Your task to perform on an android device: open wifi settings Image 0: 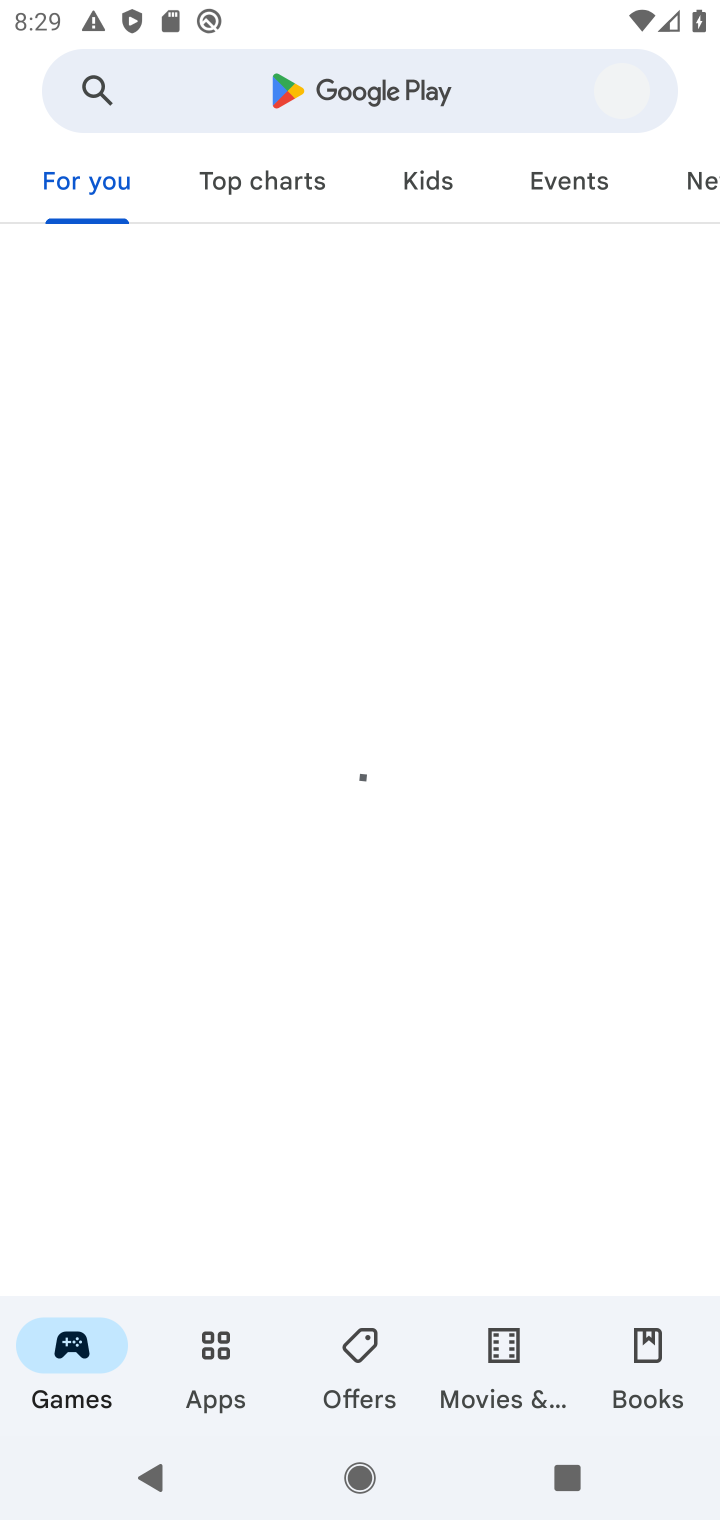
Step 0: press home button
Your task to perform on an android device: open wifi settings Image 1: 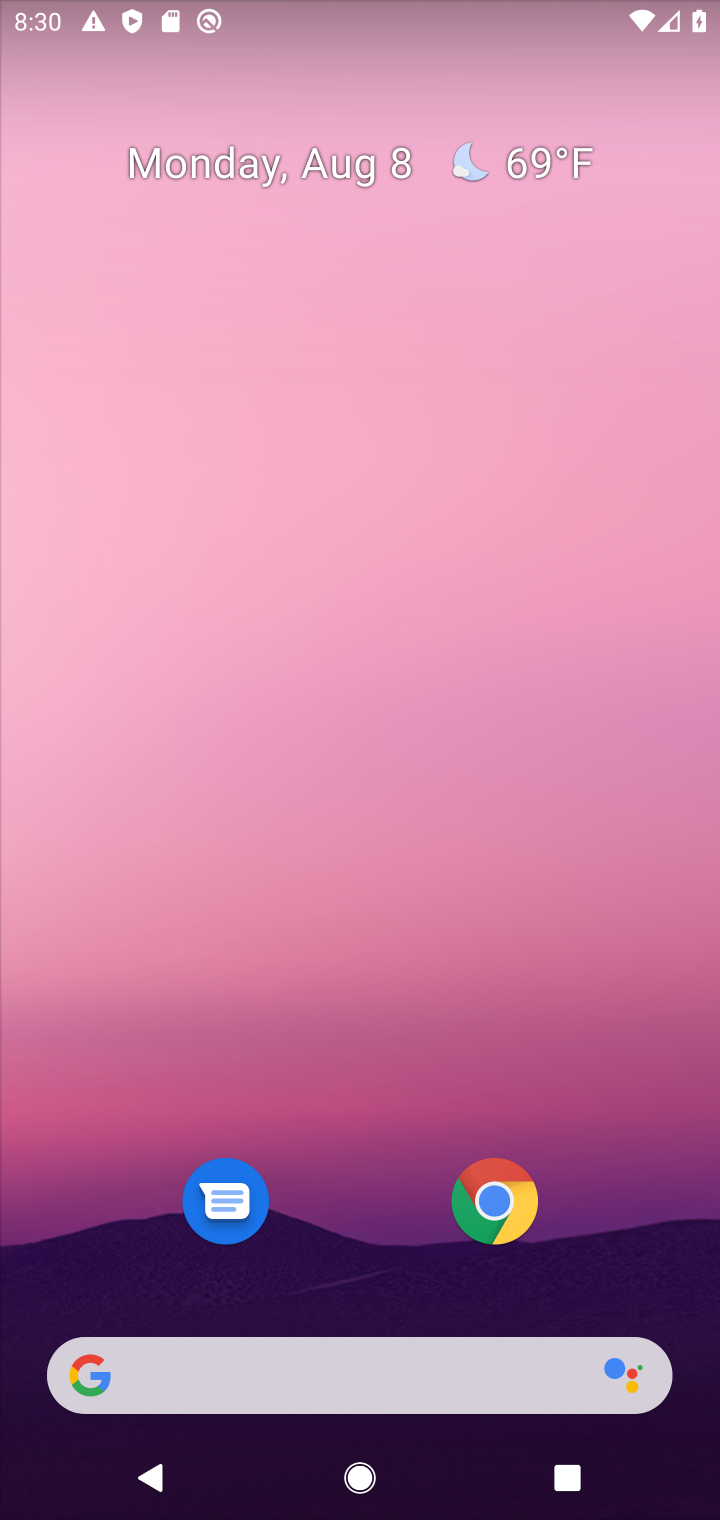
Step 1: press home button
Your task to perform on an android device: open wifi settings Image 2: 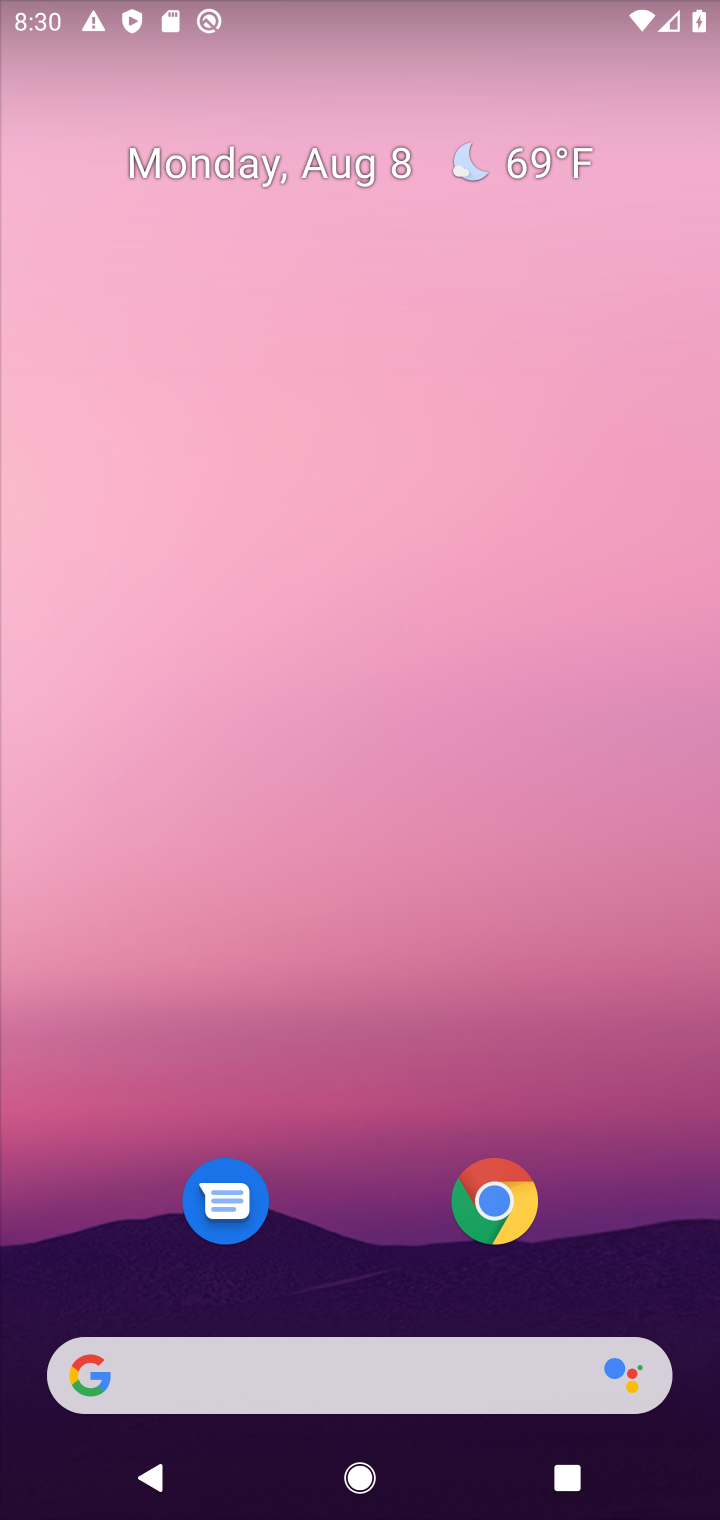
Step 2: drag from (601, 1241) to (587, 227)
Your task to perform on an android device: open wifi settings Image 3: 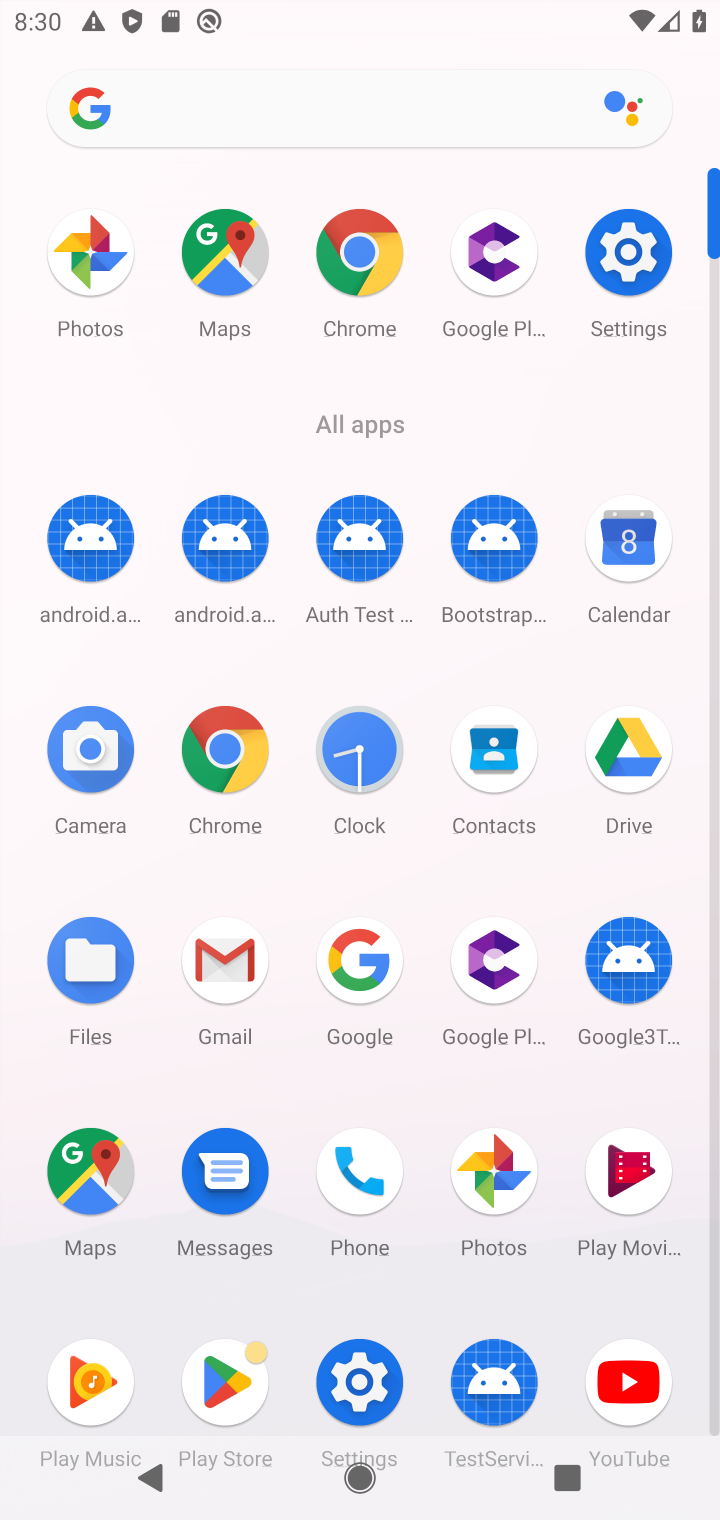
Step 3: click (635, 242)
Your task to perform on an android device: open wifi settings Image 4: 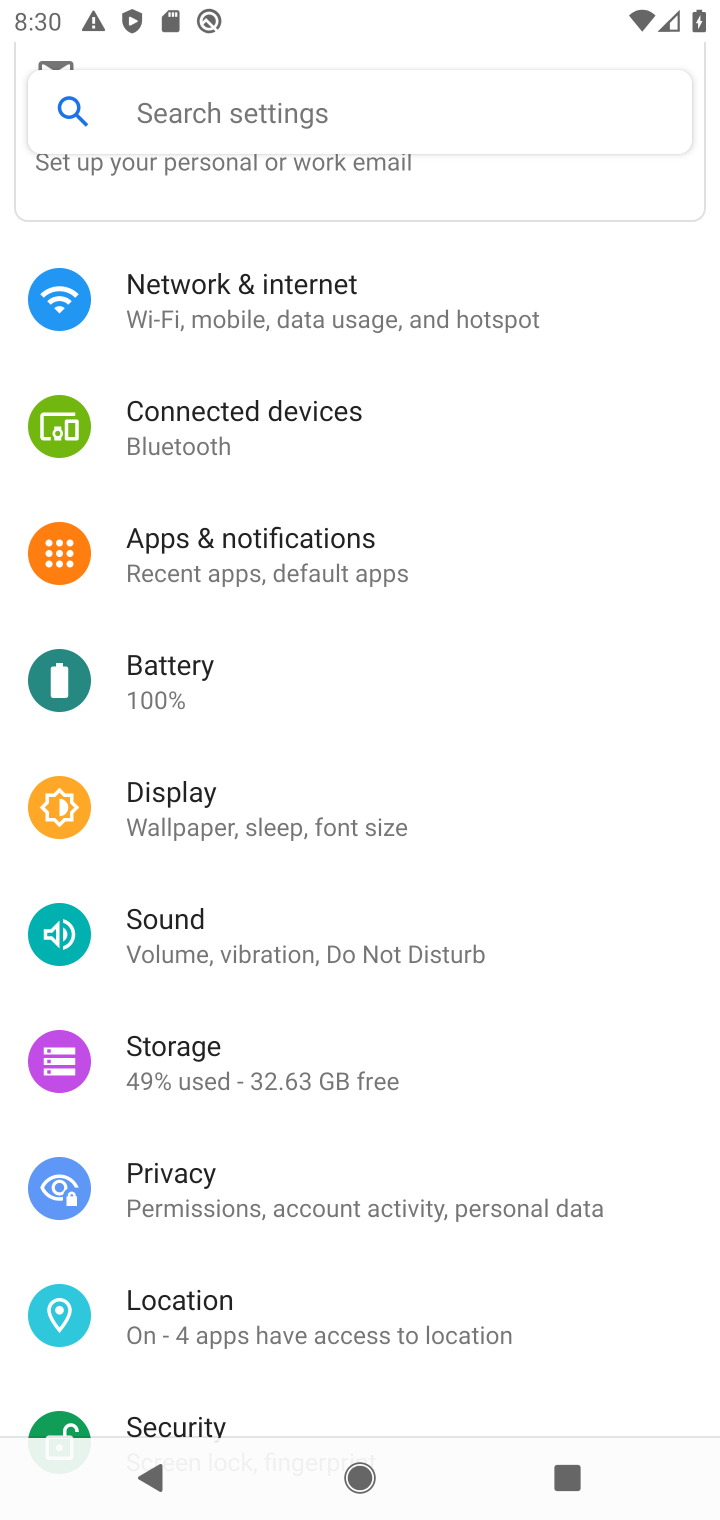
Step 4: drag from (569, 1079) to (587, 861)
Your task to perform on an android device: open wifi settings Image 5: 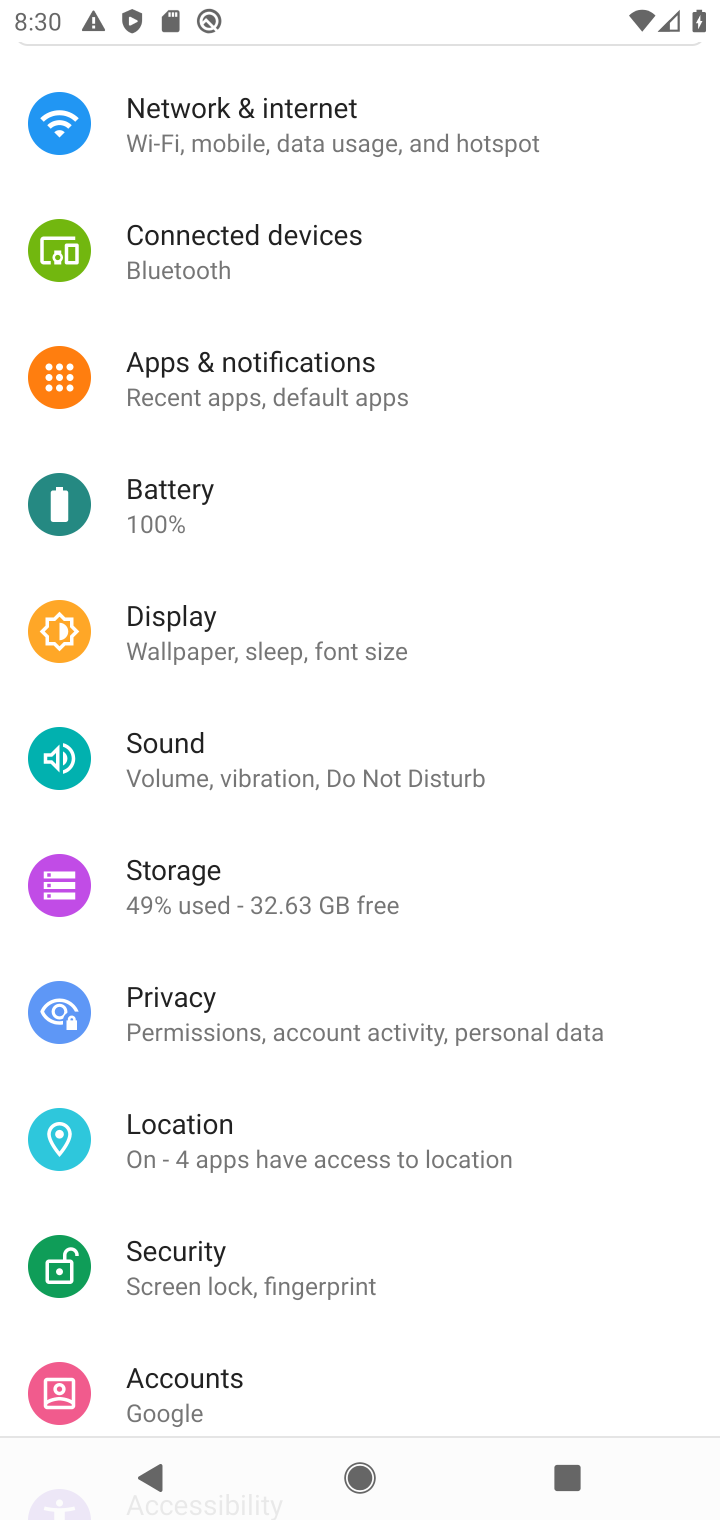
Step 5: drag from (593, 1187) to (634, 906)
Your task to perform on an android device: open wifi settings Image 6: 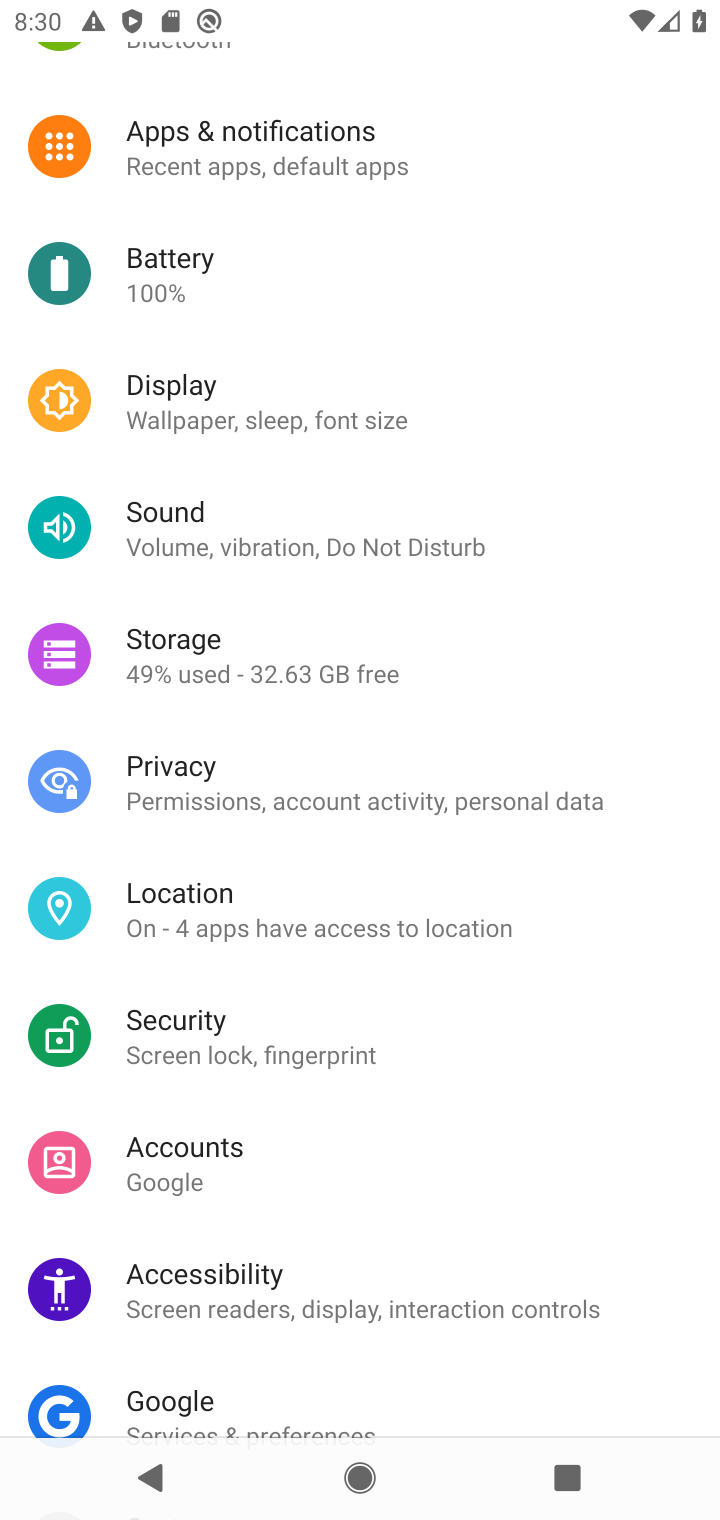
Step 6: drag from (582, 1152) to (624, 821)
Your task to perform on an android device: open wifi settings Image 7: 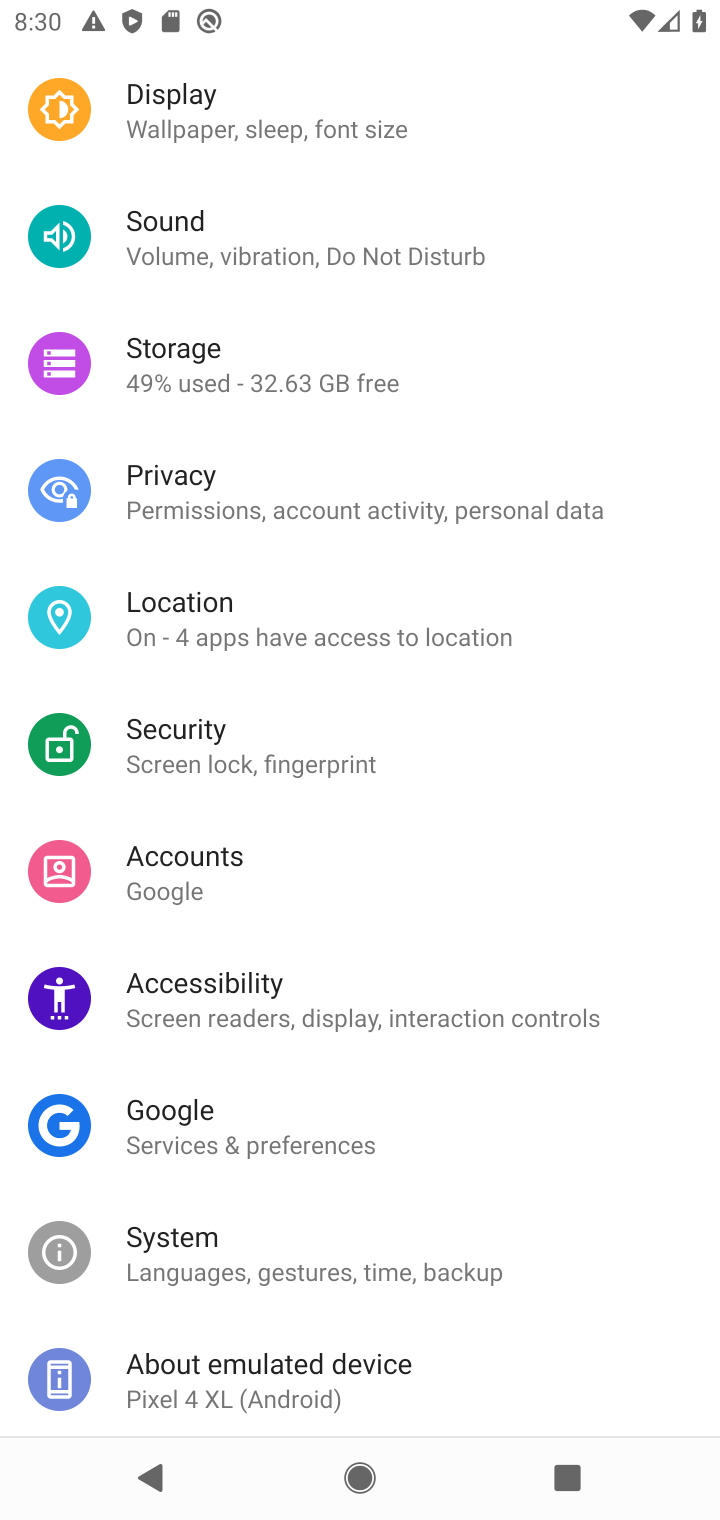
Step 7: drag from (606, 1218) to (629, 798)
Your task to perform on an android device: open wifi settings Image 8: 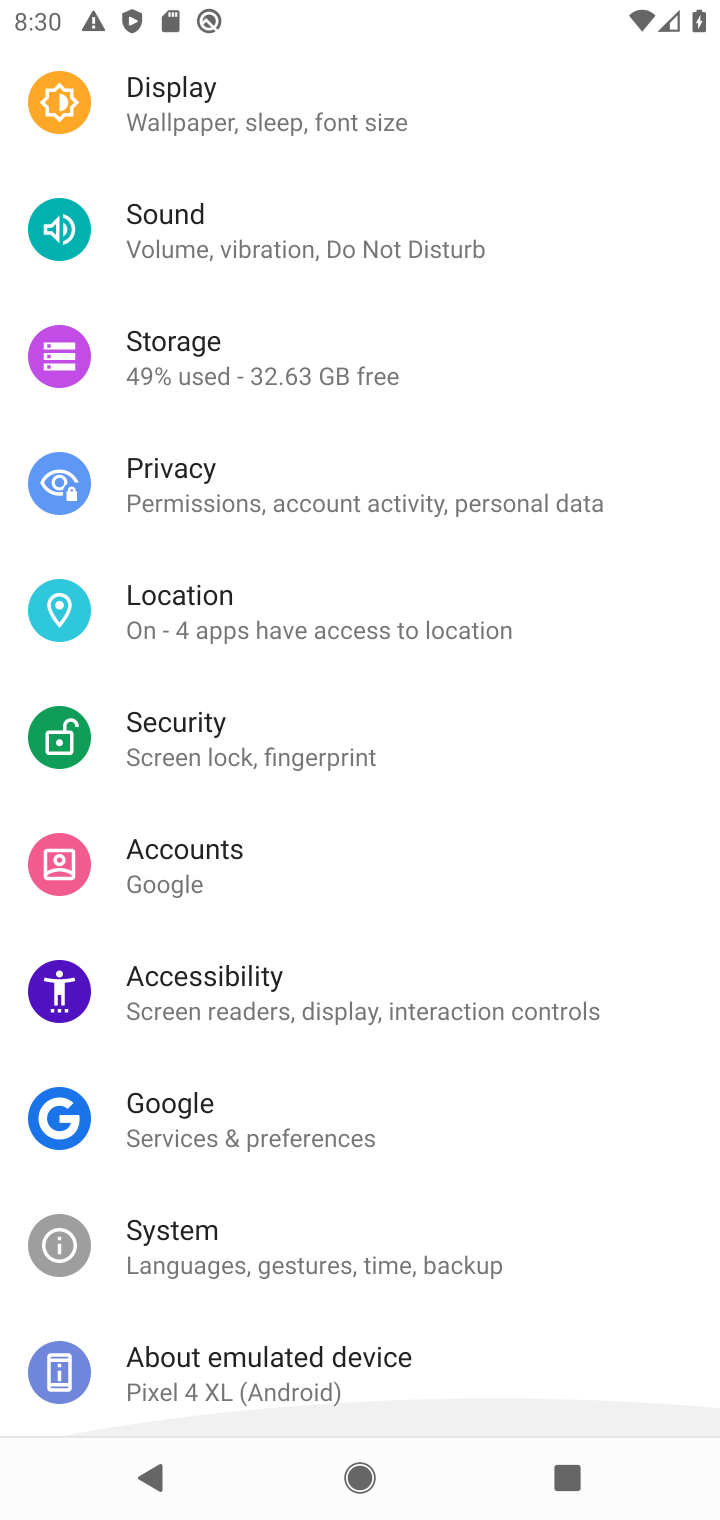
Step 8: drag from (636, 619) to (638, 991)
Your task to perform on an android device: open wifi settings Image 9: 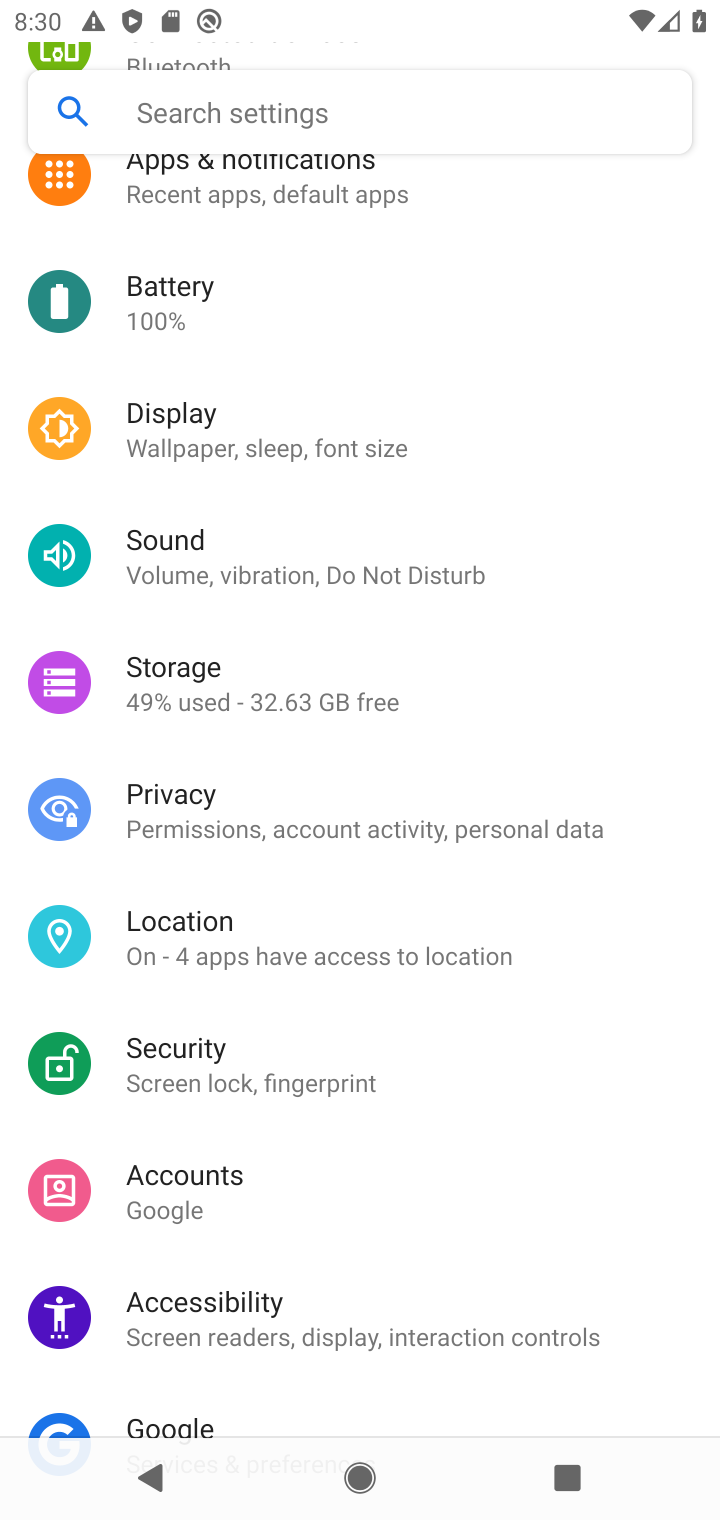
Step 9: drag from (654, 610) to (653, 905)
Your task to perform on an android device: open wifi settings Image 10: 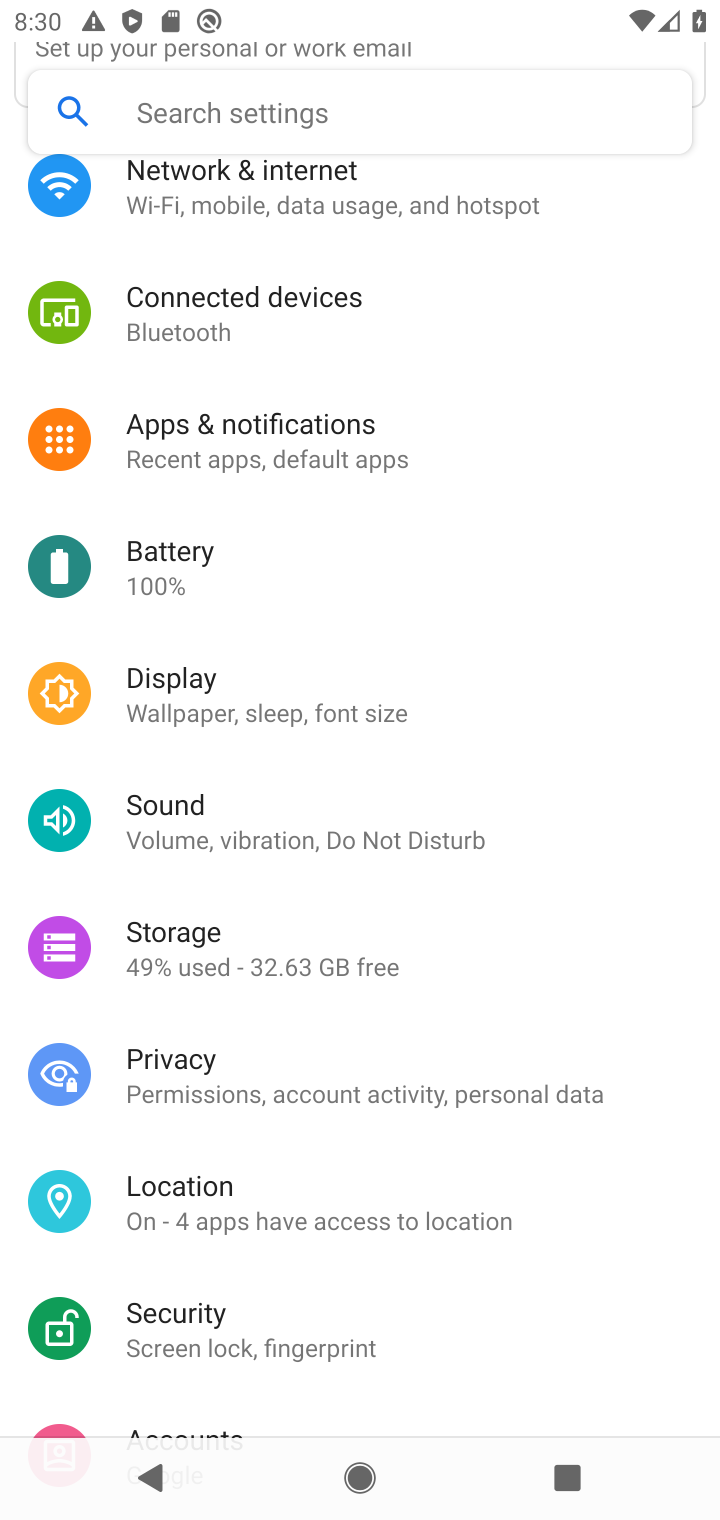
Step 10: drag from (624, 524) to (636, 779)
Your task to perform on an android device: open wifi settings Image 11: 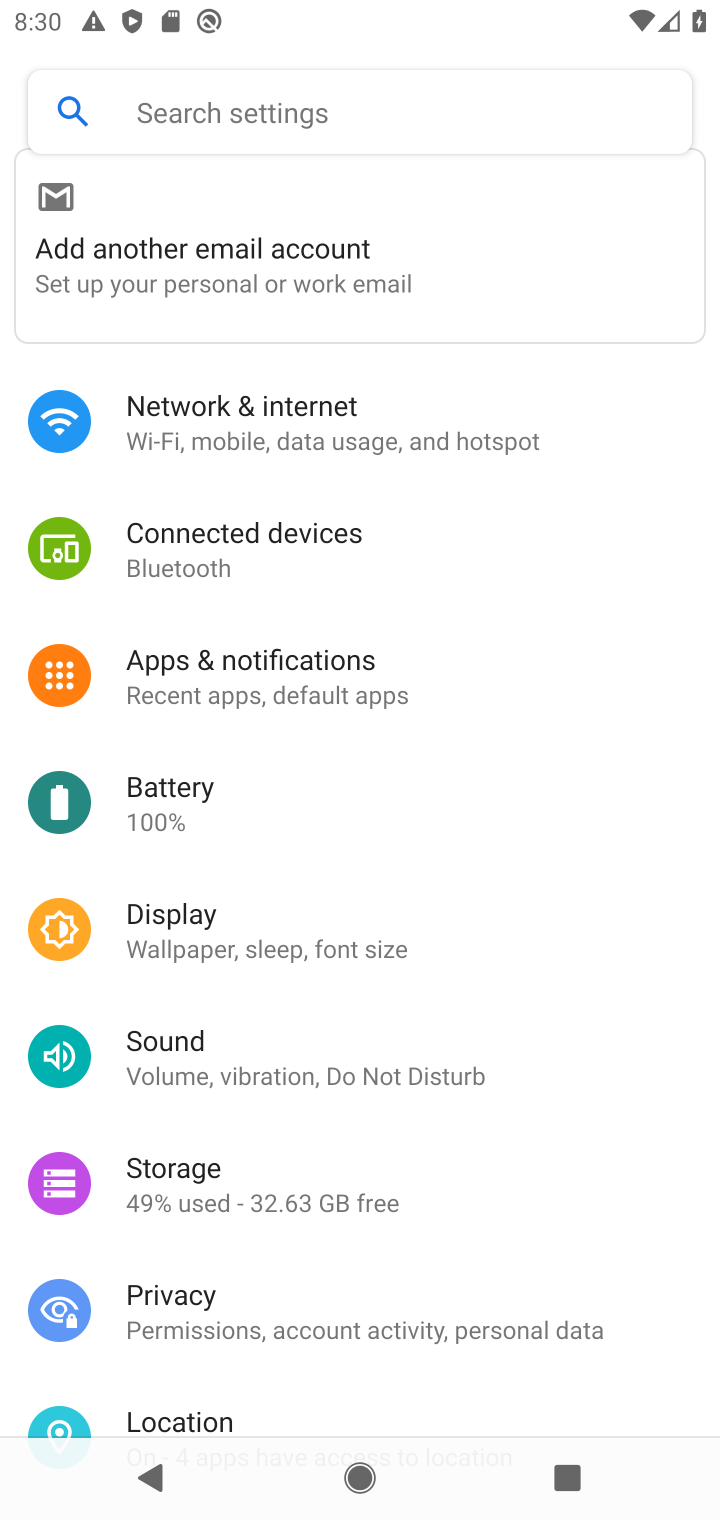
Step 11: drag from (630, 443) to (618, 719)
Your task to perform on an android device: open wifi settings Image 12: 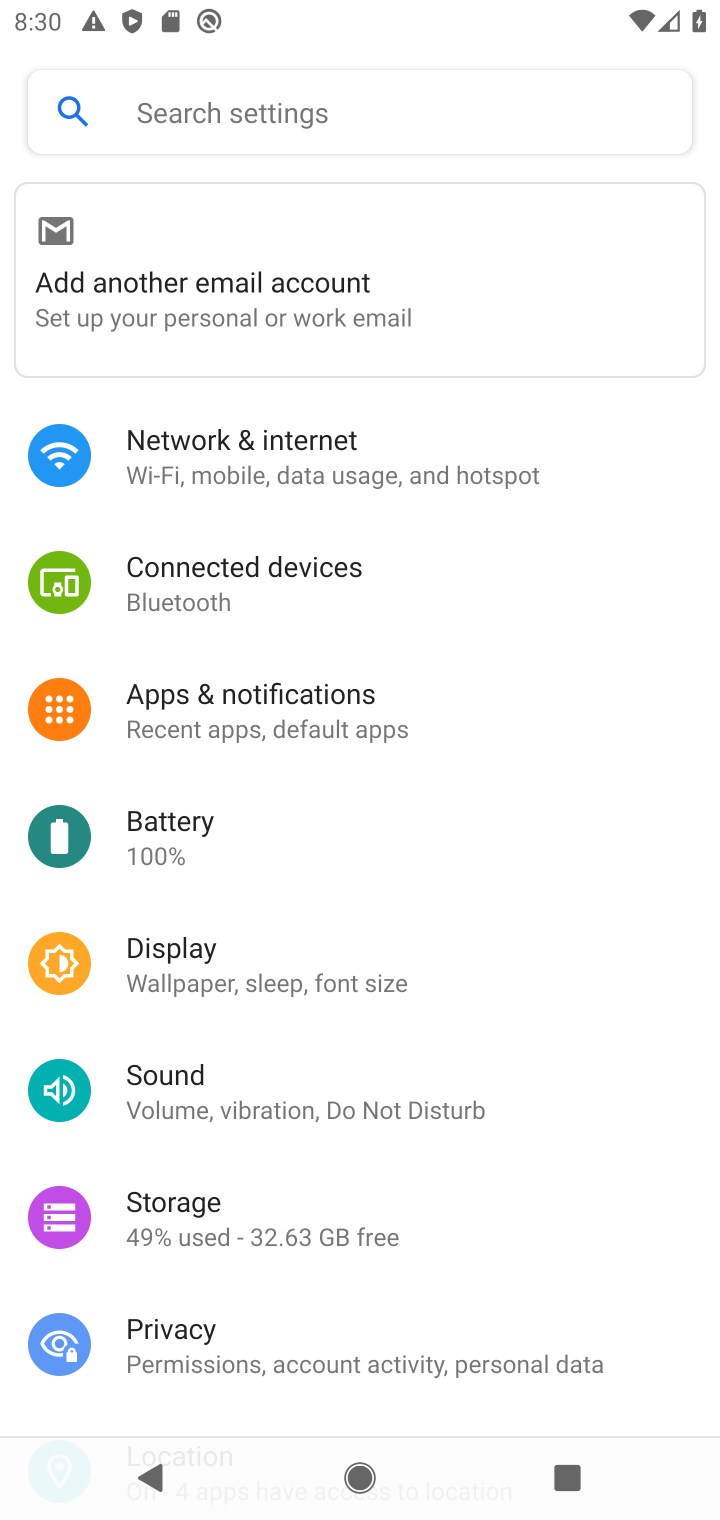
Step 12: click (392, 446)
Your task to perform on an android device: open wifi settings Image 13: 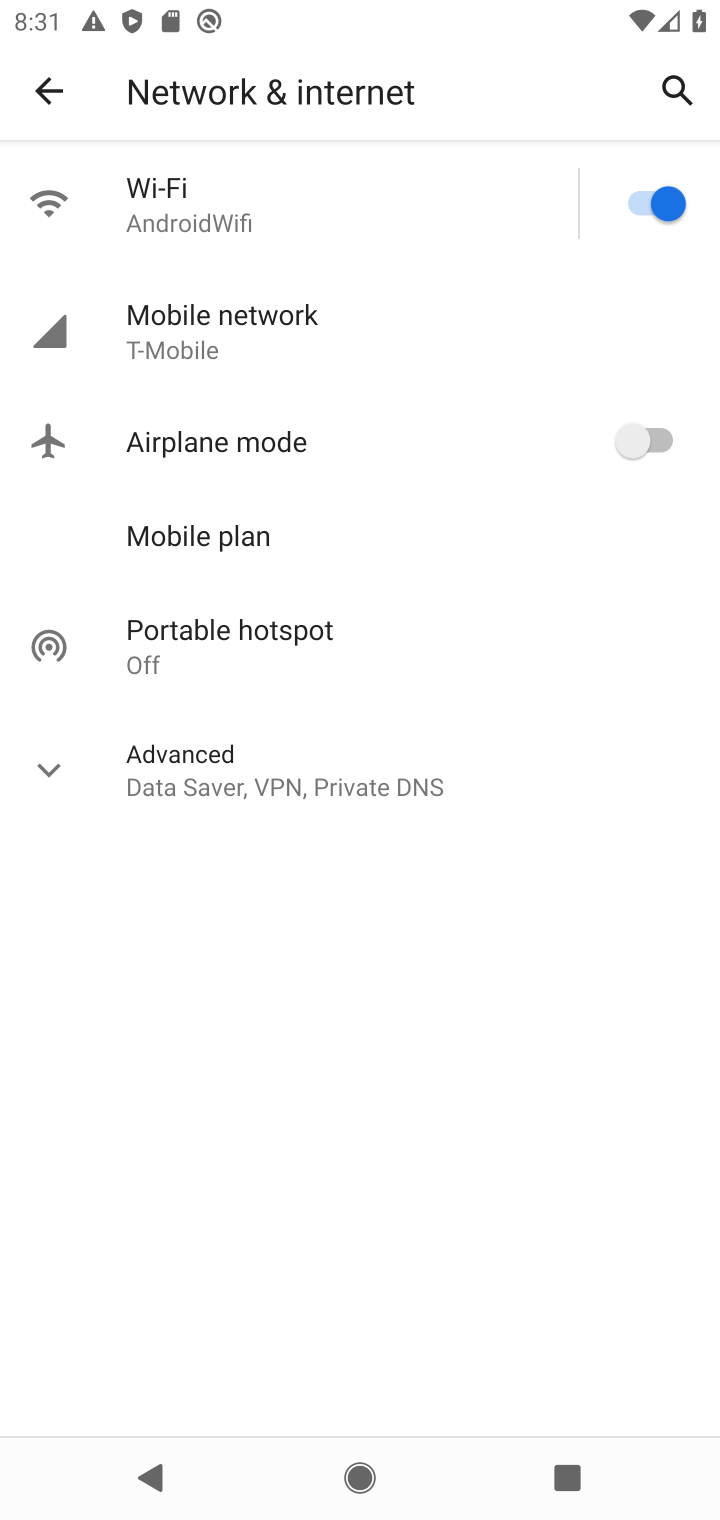
Step 13: click (229, 200)
Your task to perform on an android device: open wifi settings Image 14: 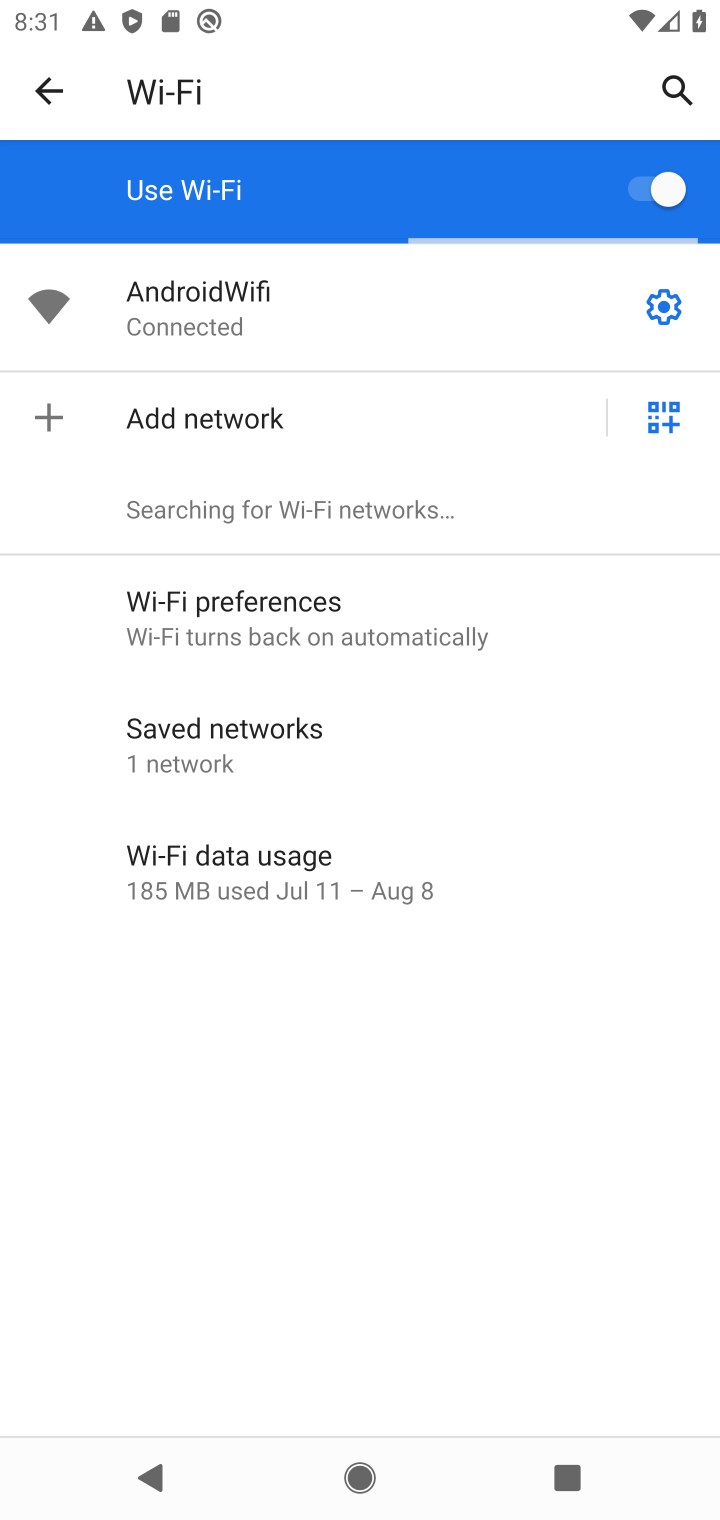
Step 14: task complete